Your task to perform on an android device: Open Youtube and go to "Your channel" Image 0: 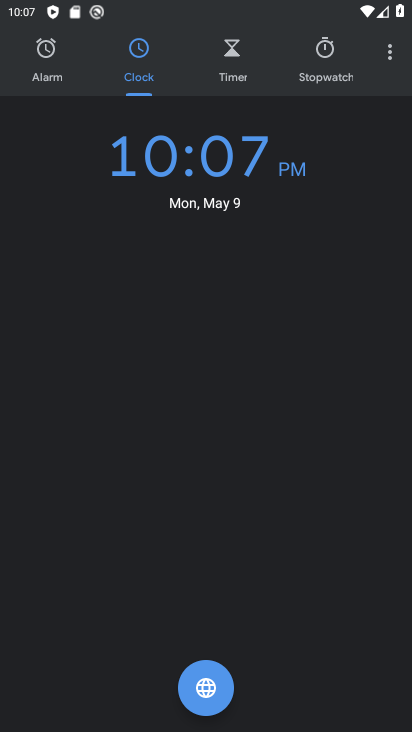
Step 0: press home button
Your task to perform on an android device: Open Youtube and go to "Your channel" Image 1: 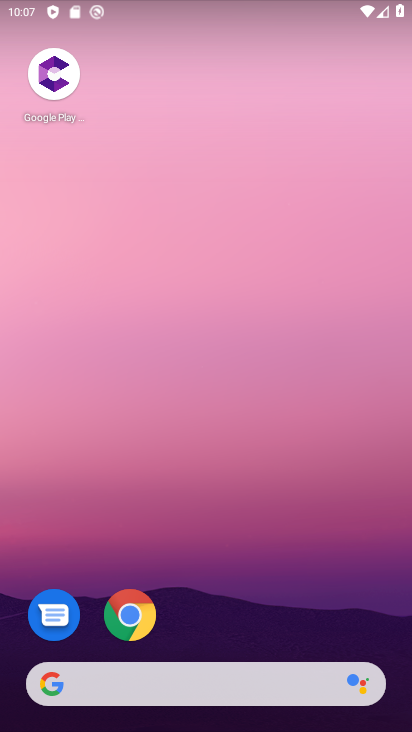
Step 1: drag from (200, 643) to (274, 219)
Your task to perform on an android device: Open Youtube and go to "Your channel" Image 2: 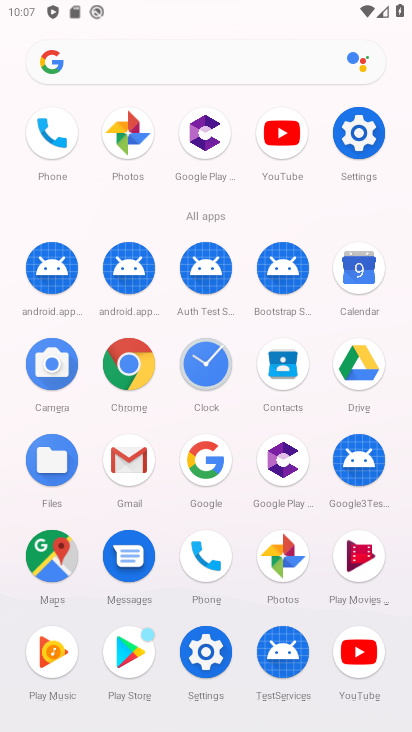
Step 2: click (278, 136)
Your task to perform on an android device: Open Youtube and go to "Your channel" Image 3: 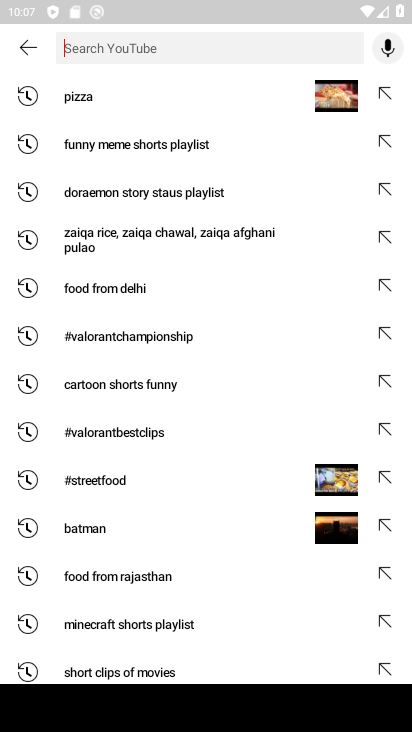
Step 3: click (36, 47)
Your task to perform on an android device: Open Youtube and go to "Your channel" Image 4: 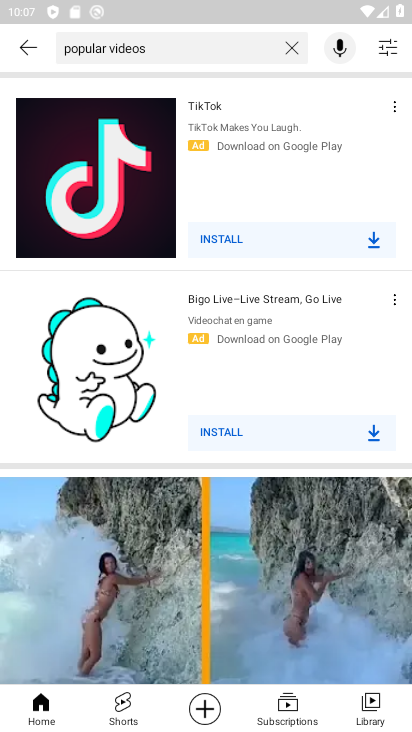
Step 4: click (386, 51)
Your task to perform on an android device: Open Youtube and go to "Your channel" Image 5: 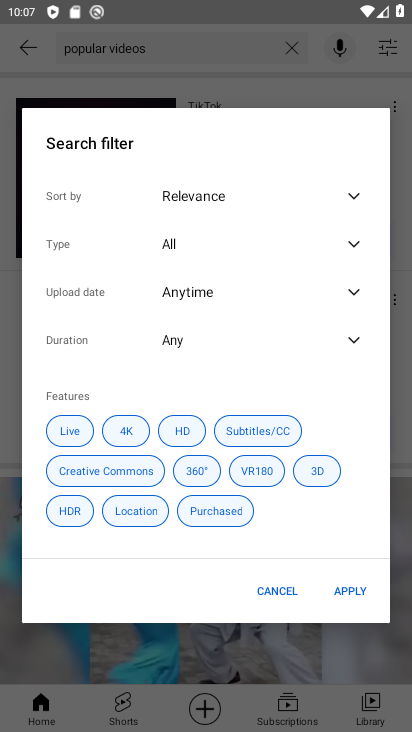
Step 5: click (20, 50)
Your task to perform on an android device: Open Youtube and go to "Your channel" Image 6: 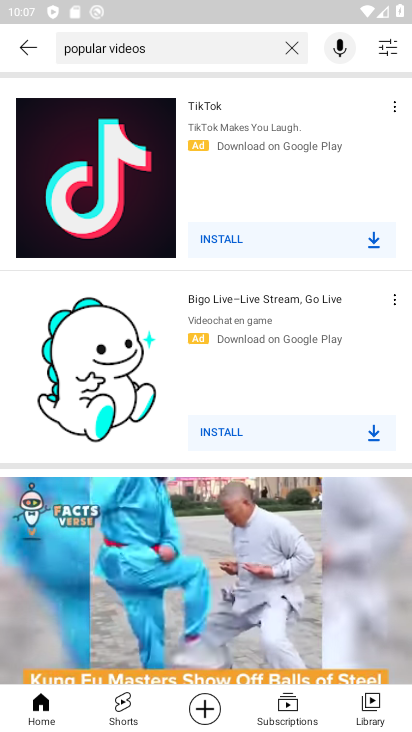
Step 6: click (20, 50)
Your task to perform on an android device: Open Youtube and go to "Your channel" Image 7: 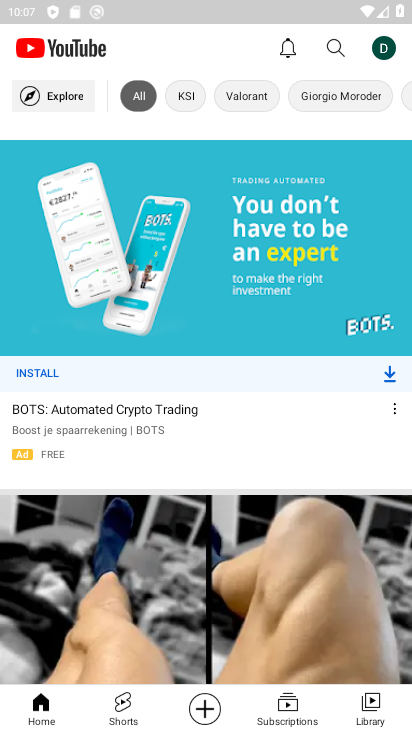
Step 7: click (381, 51)
Your task to perform on an android device: Open Youtube and go to "Your channel" Image 8: 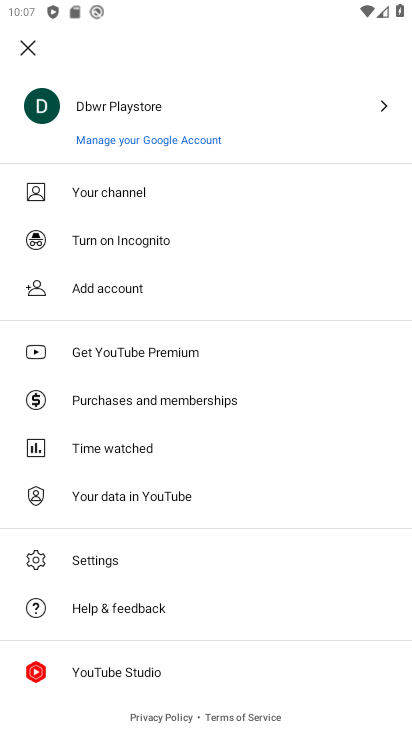
Step 8: click (104, 193)
Your task to perform on an android device: Open Youtube and go to "Your channel" Image 9: 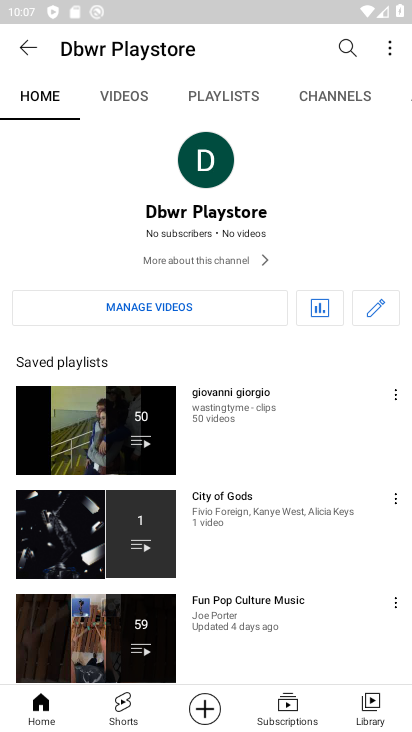
Step 9: task complete